Your task to perform on an android device: stop showing notifications on the lock screen Image 0: 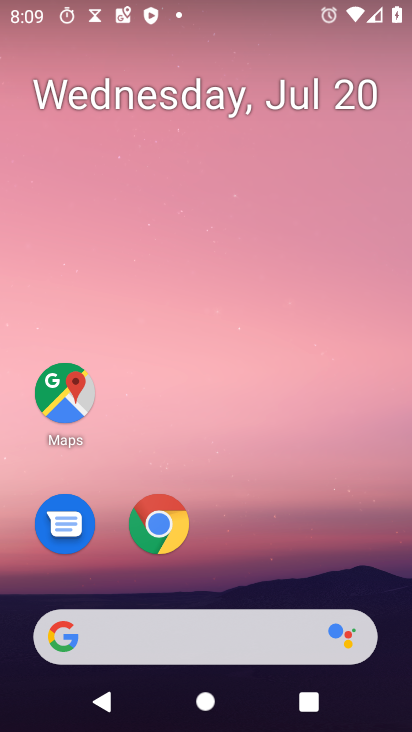
Step 0: drag from (191, 627) to (317, 100)
Your task to perform on an android device: stop showing notifications on the lock screen Image 1: 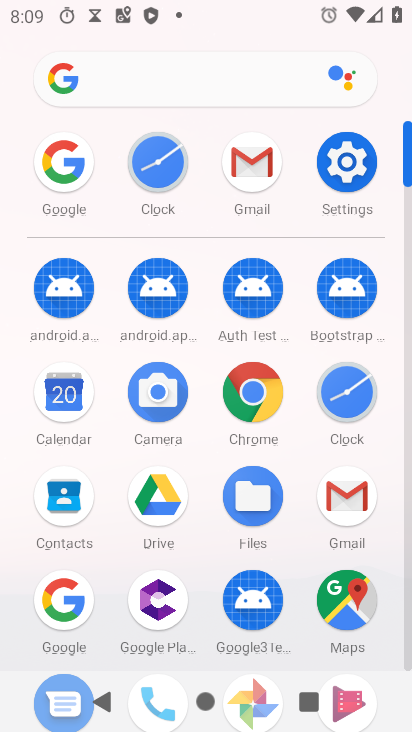
Step 1: click (324, 148)
Your task to perform on an android device: stop showing notifications on the lock screen Image 2: 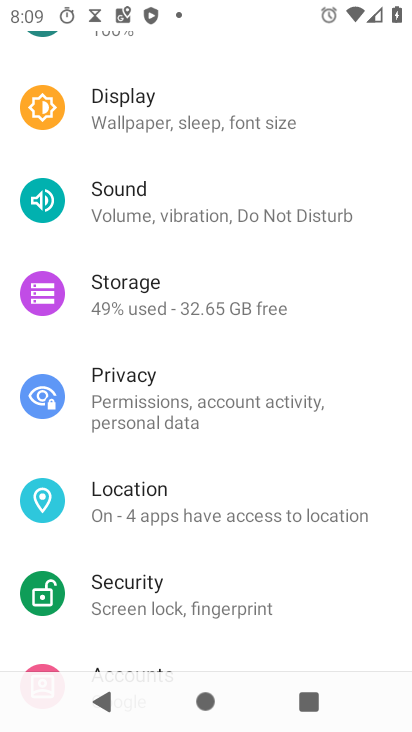
Step 2: drag from (238, 592) to (406, 10)
Your task to perform on an android device: stop showing notifications on the lock screen Image 3: 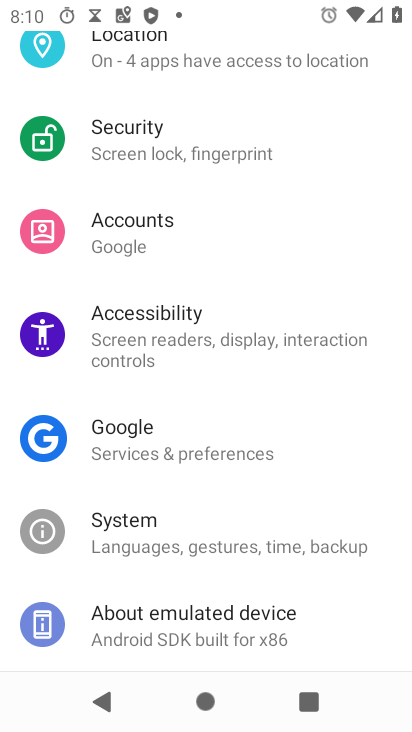
Step 3: drag from (308, 130) to (200, 658)
Your task to perform on an android device: stop showing notifications on the lock screen Image 4: 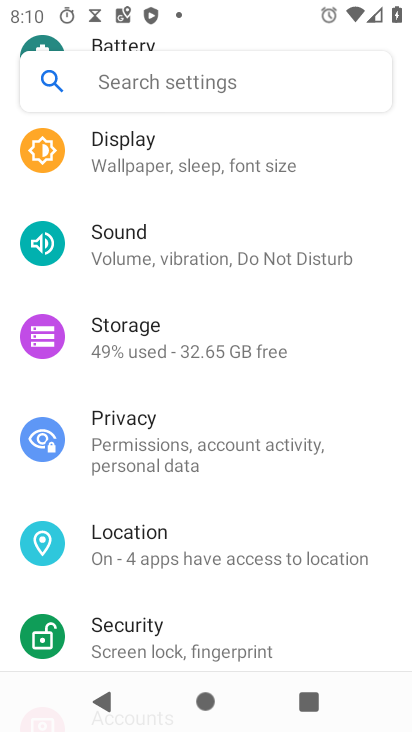
Step 4: drag from (310, 206) to (192, 630)
Your task to perform on an android device: stop showing notifications on the lock screen Image 5: 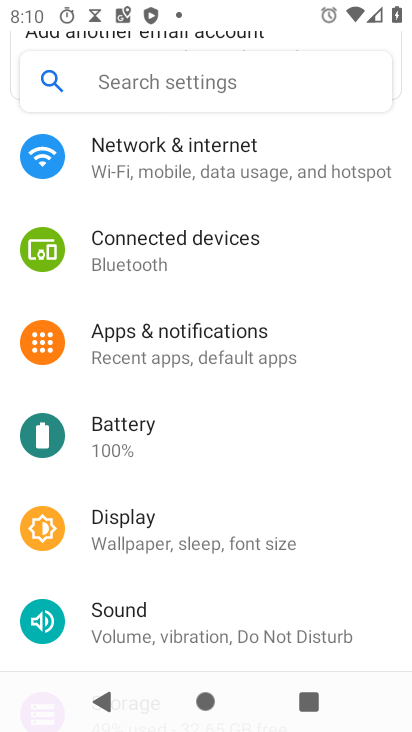
Step 5: click (187, 341)
Your task to perform on an android device: stop showing notifications on the lock screen Image 6: 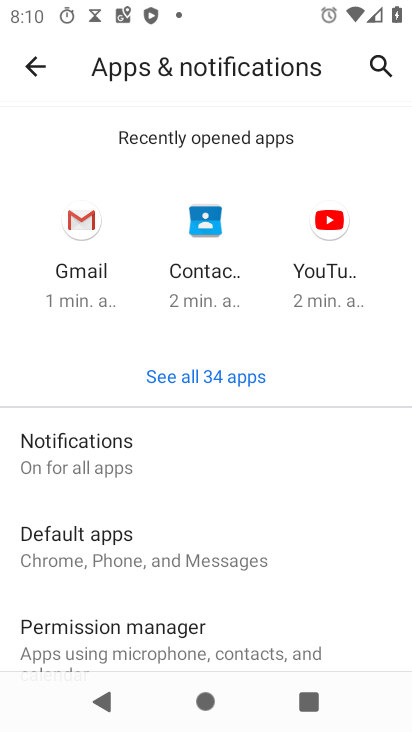
Step 6: click (77, 445)
Your task to perform on an android device: stop showing notifications on the lock screen Image 7: 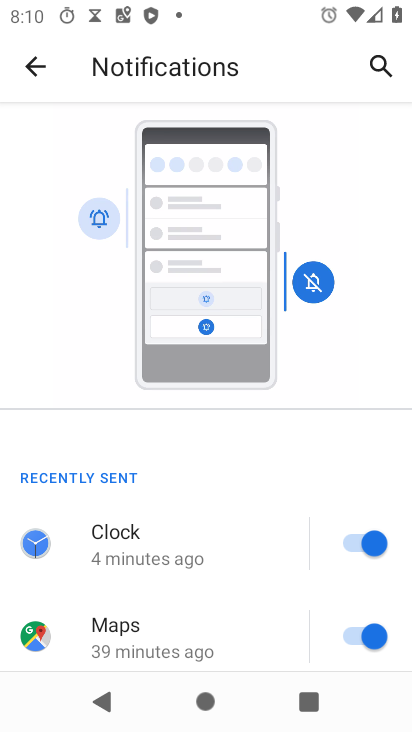
Step 7: drag from (237, 632) to (349, 267)
Your task to perform on an android device: stop showing notifications on the lock screen Image 8: 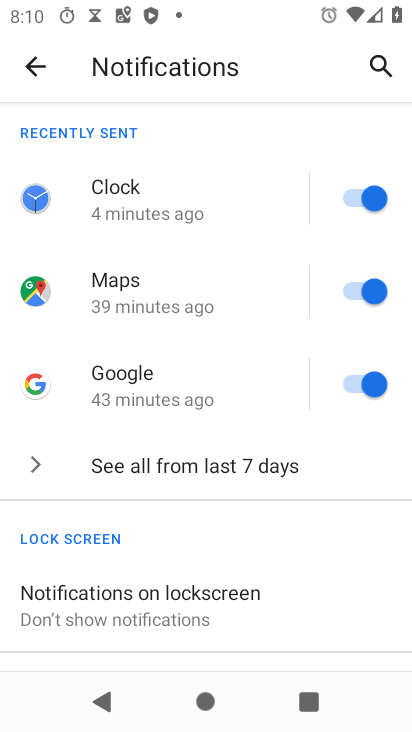
Step 8: click (156, 589)
Your task to perform on an android device: stop showing notifications on the lock screen Image 9: 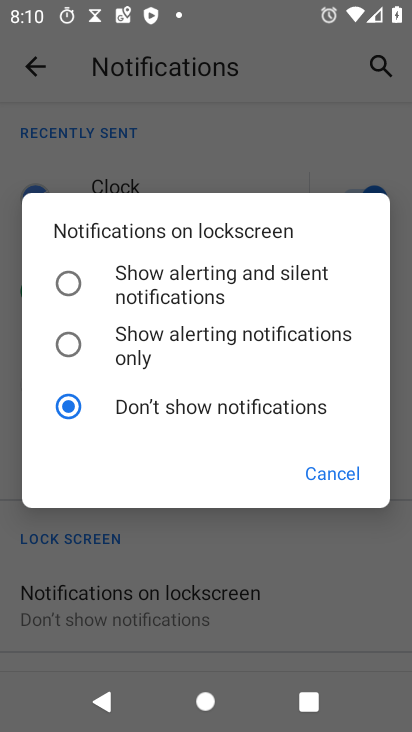
Step 9: task complete